Your task to perform on an android device: Go to Wikipedia Image 0: 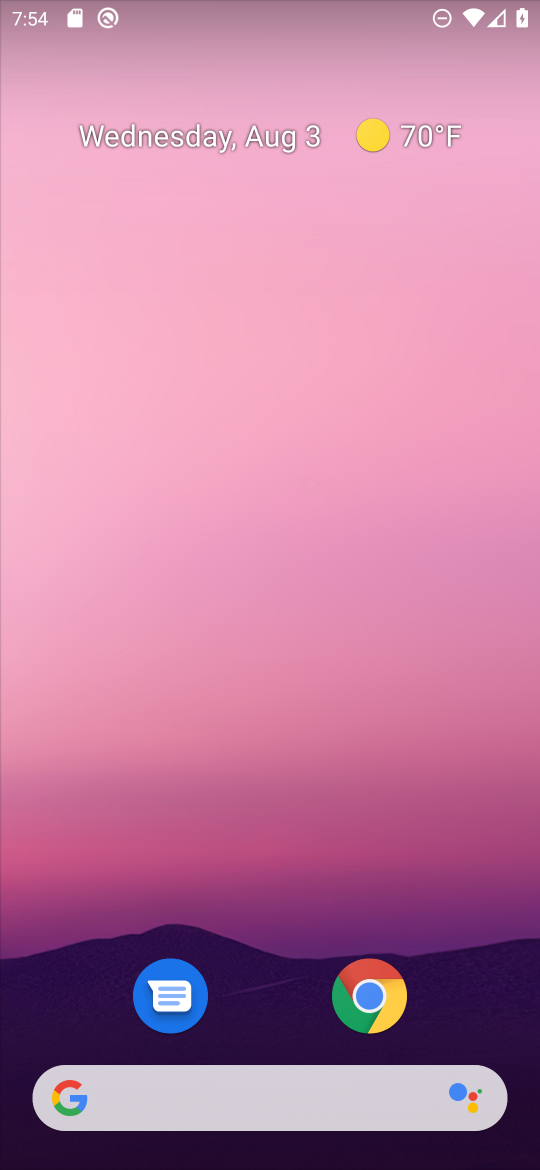
Step 0: click (365, 995)
Your task to perform on an android device: Go to Wikipedia Image 1: 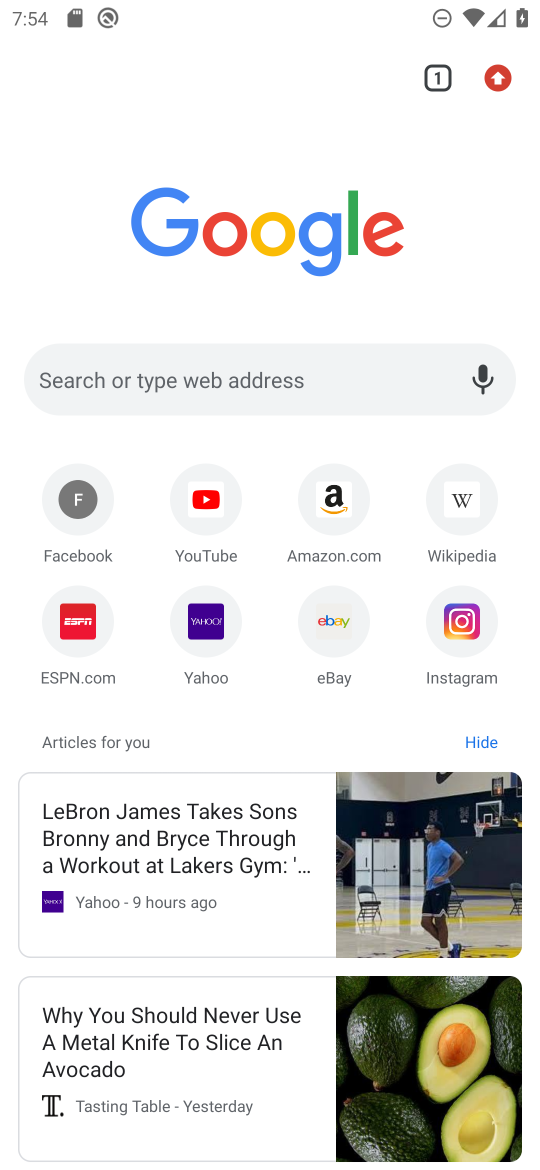
Step 1: click (459, 496)
Your task to perform on an android device: Go to Wikipedia Image 2: 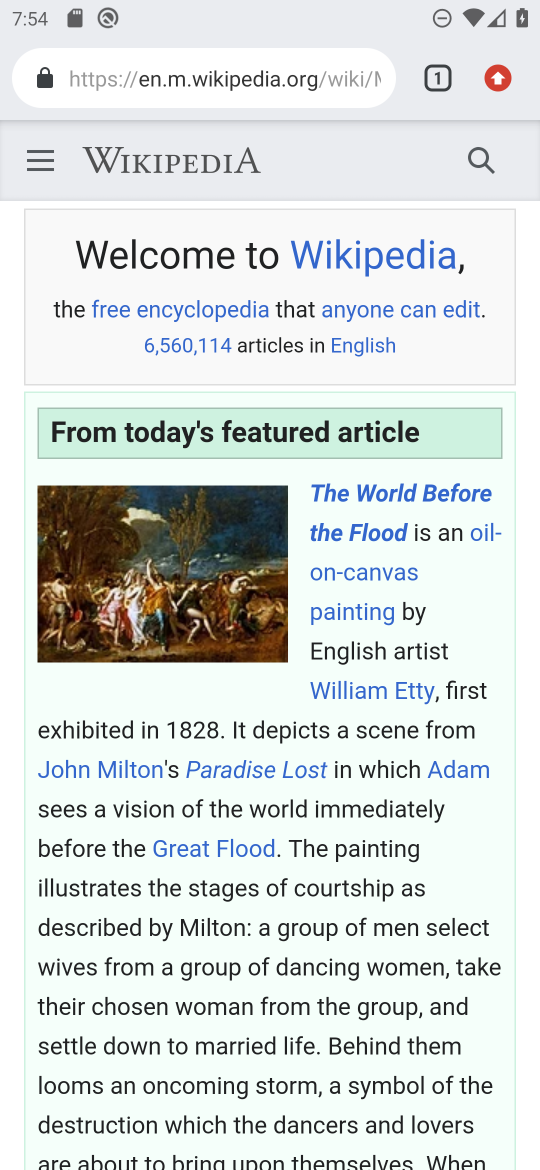
Step 2: task complete